Your task to perform on an android device: Open Wikipedia Image 0: 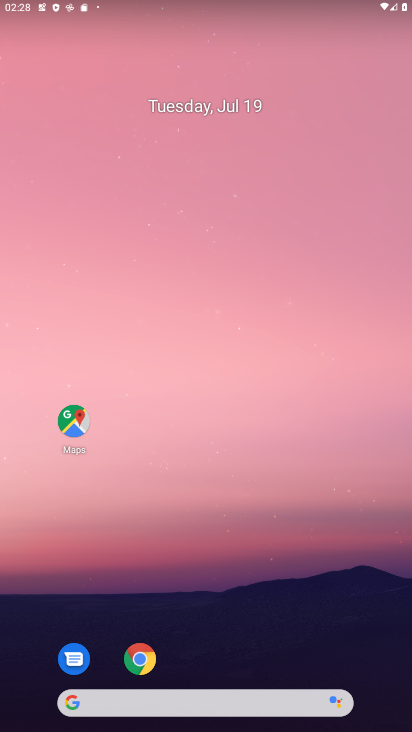
Step 0: press home button
Your task to perform on an android device: Open Wikipedia Image 1: 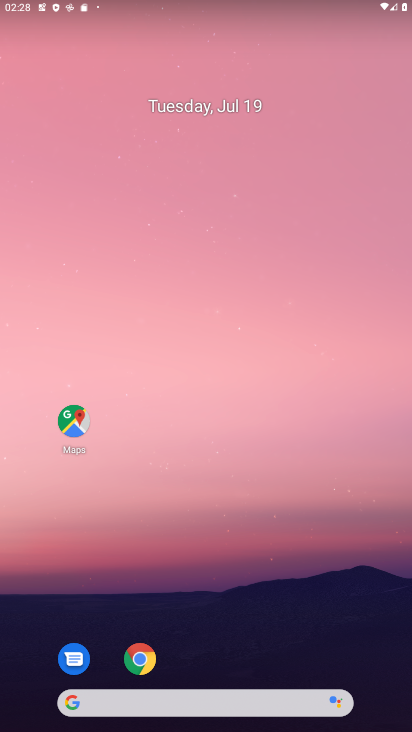
Step 1: click (151, 651)
Your task to perform on an android device: Open Wikipedia Image 2: 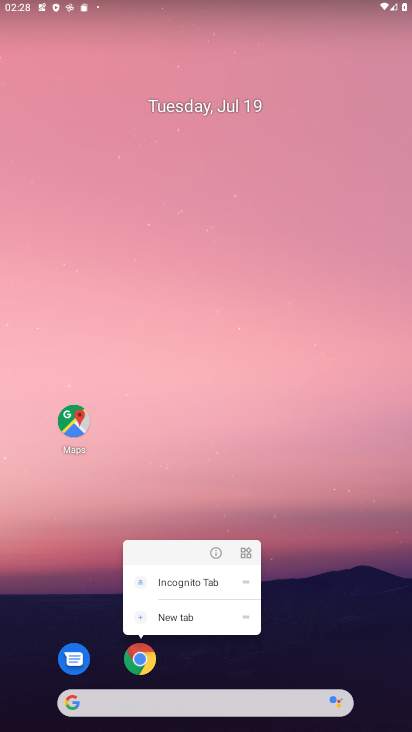
Step 2: click (145, 678)
Your task to perform on an android device: Open Wikipedia Image 3: 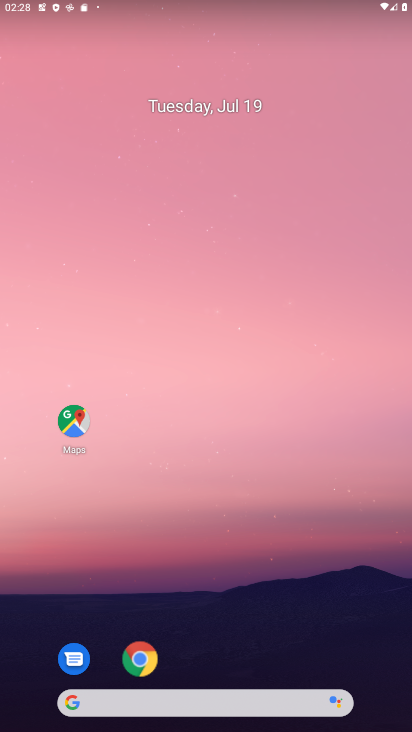
Step 3: click (145, 662)
Your task to perform on an android device: Open Wikipedia Image 4: 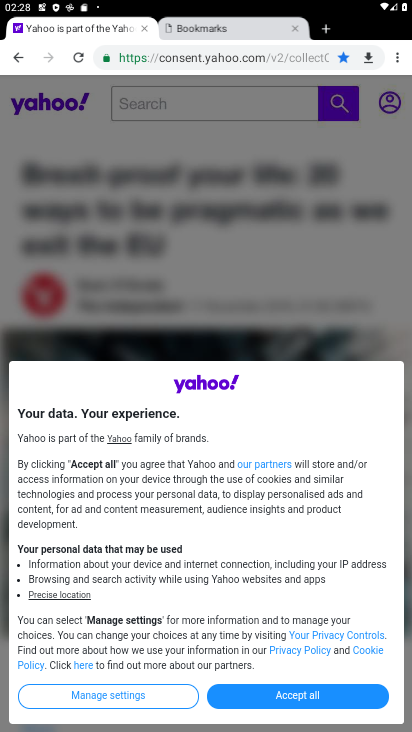
Step 4: click (297, 49)
Your task to perform on an android device: Open Wikipedia Image 5: 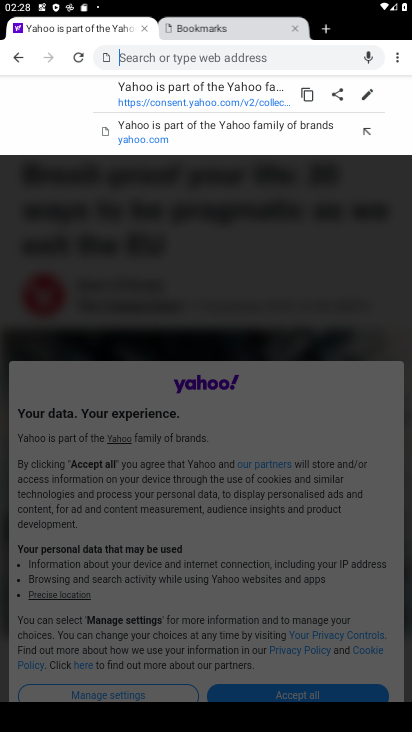
Step 5: type "Wikipedia"
Your task to perform on an android device: Open Wikipedia Image 6: 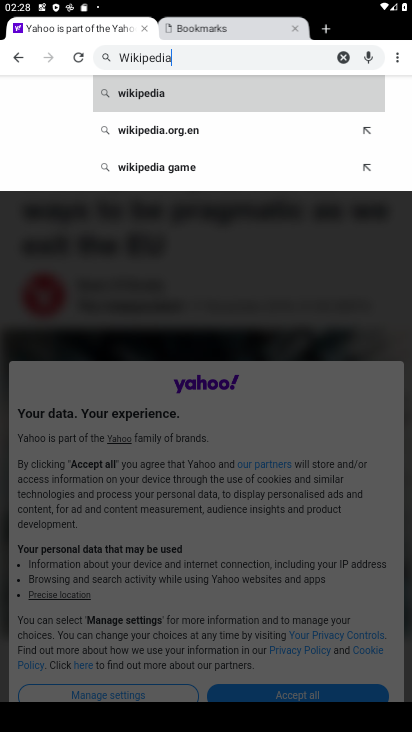
Step 6: type ""
Your task to perform on an android device: Open Wikipedia Image 7: 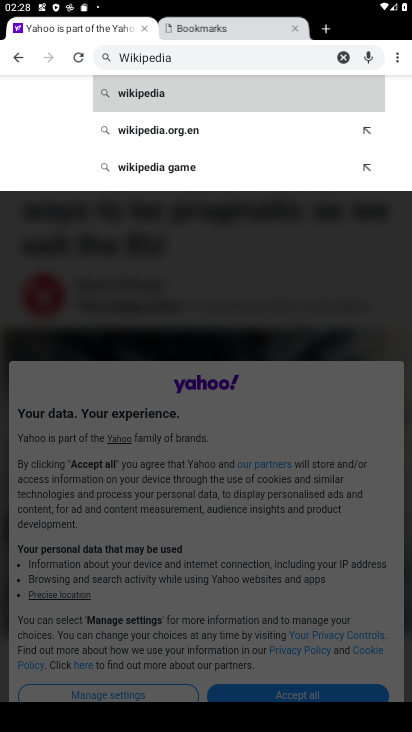
Step 7: click (177, 98)
Your task to perform on an android device: Open Wikipedia Image 8: 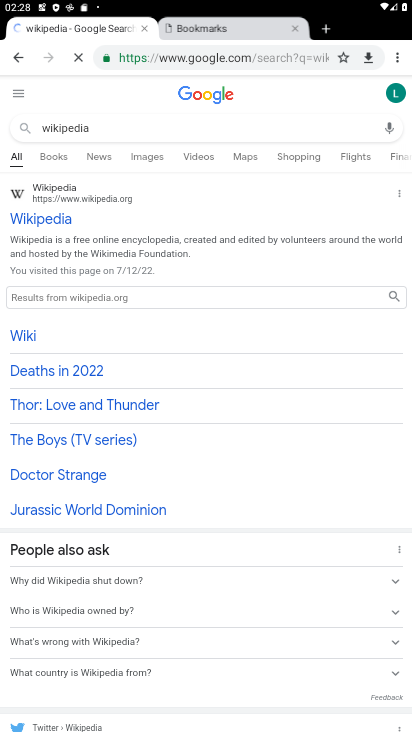
Step 8: click (53, 230)
Your task to perform on an android device: Open Wikipedia Image 9: 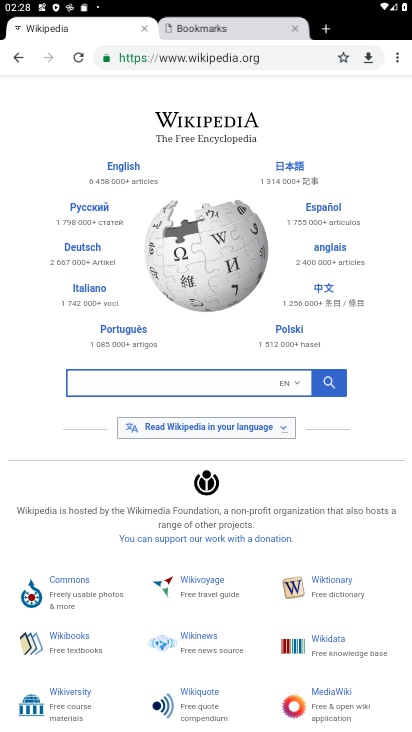
Step 9: task complete